Your task to perform on an android device: turn vacation reply on in the gmail app Image 0: 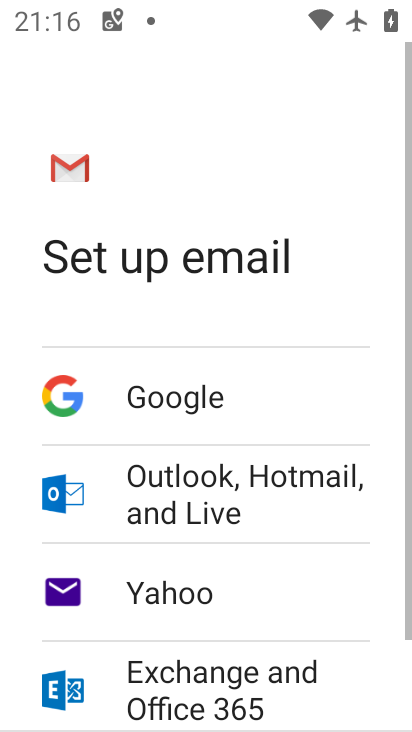
Step 0: press home button
Your task to perform on an android device: turn vacation reply on in the gmail app Image 1: 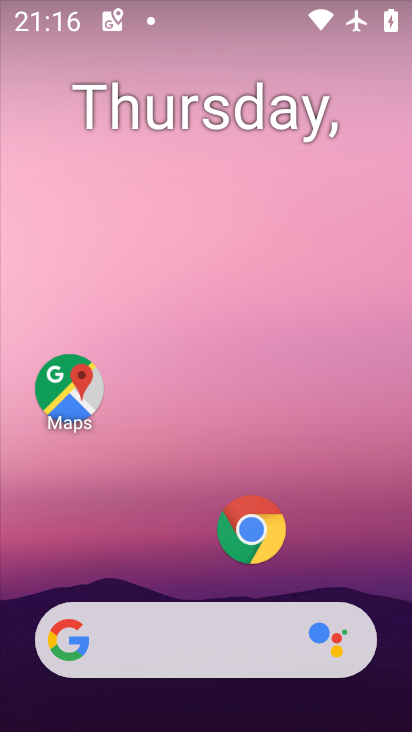
Step 1: drag from (200, 583) to (226, 144)
Your task to perform on an android device: turn vacation reply on in the gmail app Image 2: 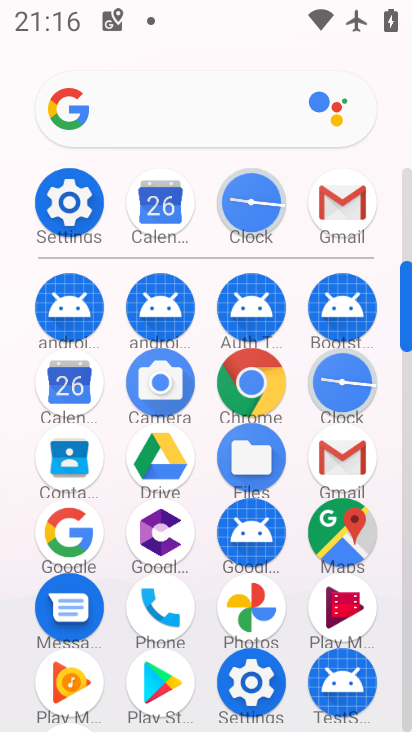
Step 2: click (337, 444)
Your task to perform on an android device: turn vacation reply on in the gmail app Image 3: 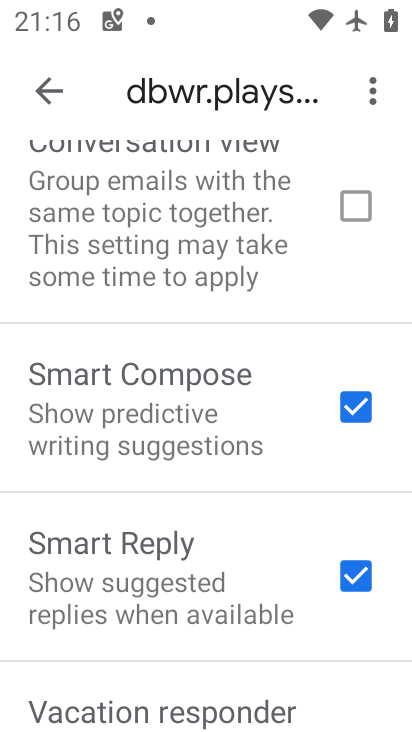
Step 3: click (230, 699)
Your task to perform on an android device: turn vacation reply on in the gmail app Image 4: 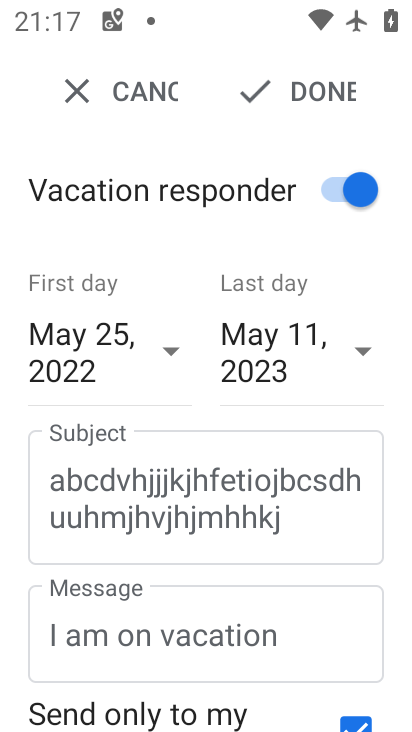
Step 4: task complete